Your task to perform on an android device: Open accessibility settings Image 0: 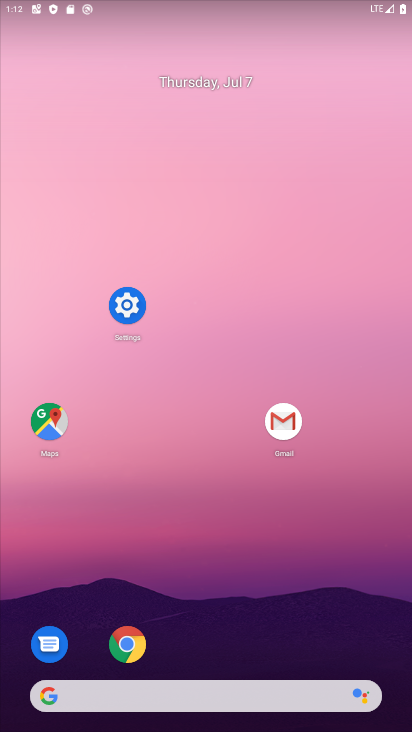
Step 0: click (126, 294)
Your task to perform on an android device: Open accessibility settings Image 1: 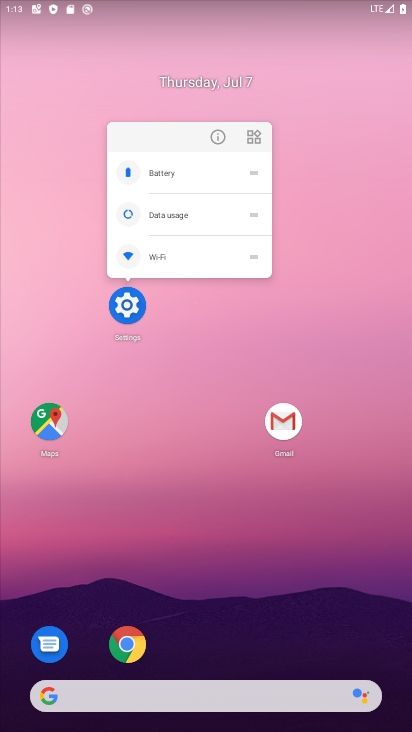
Step 1: click (139, 307)
Your task to perform on an android device: Open accessibility settings Image 2: 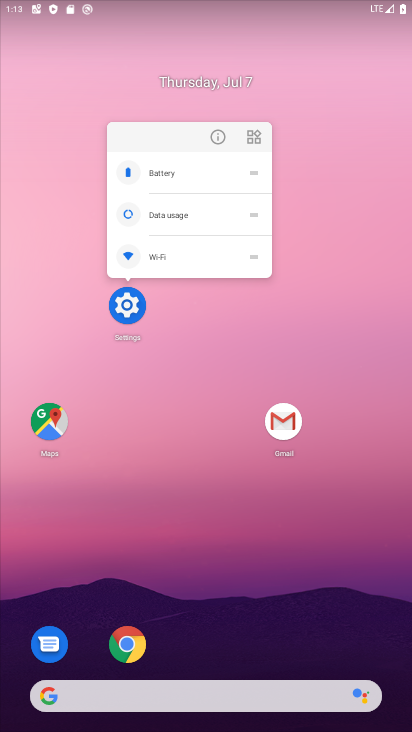
Step 2: click (129, 306)
Your task to perform on an android device: Open accessibility settings Image 3: 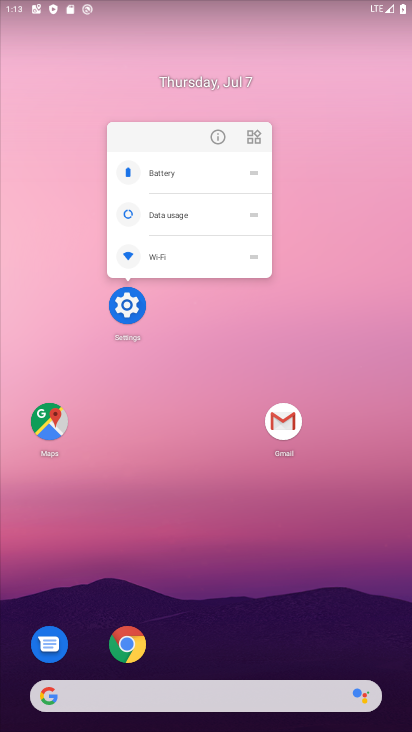
Step 3: click (129, 306)
Your task to perform on an android device: Open accessibility settings Image 4: 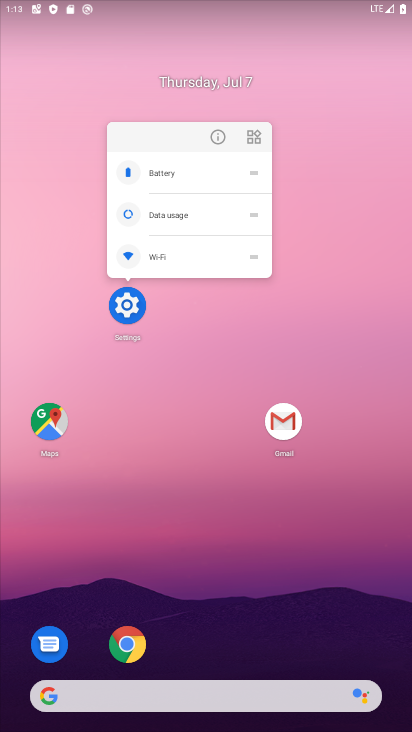
Step 4: click (119, 304)
Your task to perform on an android device: Open accessibility settings Image 5: 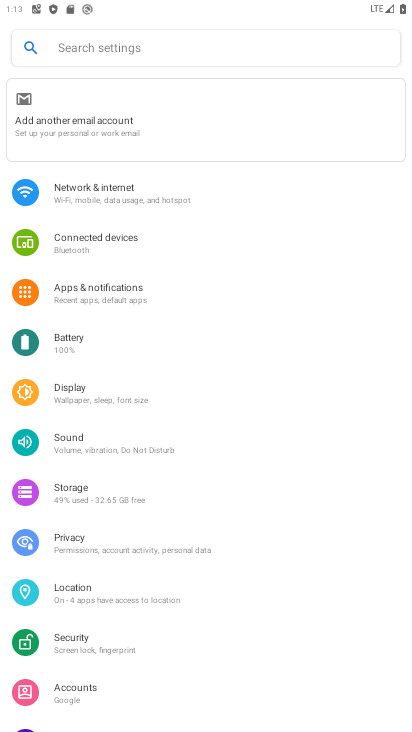
Step 5: drag from (240, 694) to (236, 269)
Your task to perform on an android device: Open accessibility settings Image 6: 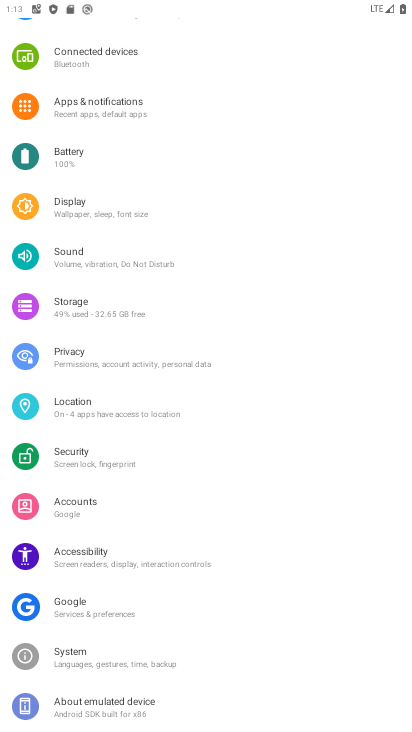
Step 6: click (68, 553)
Your task to perform on an android device: Open accessibility settings Image 7: 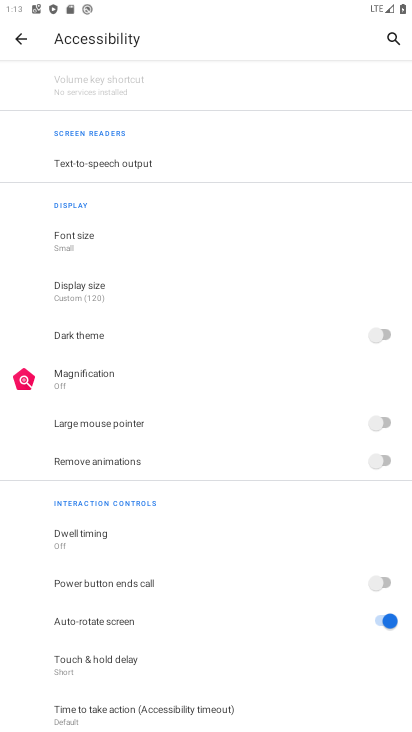
Step 7: task complete